Your task to perform on an android device: change text size in settings app Image 0: 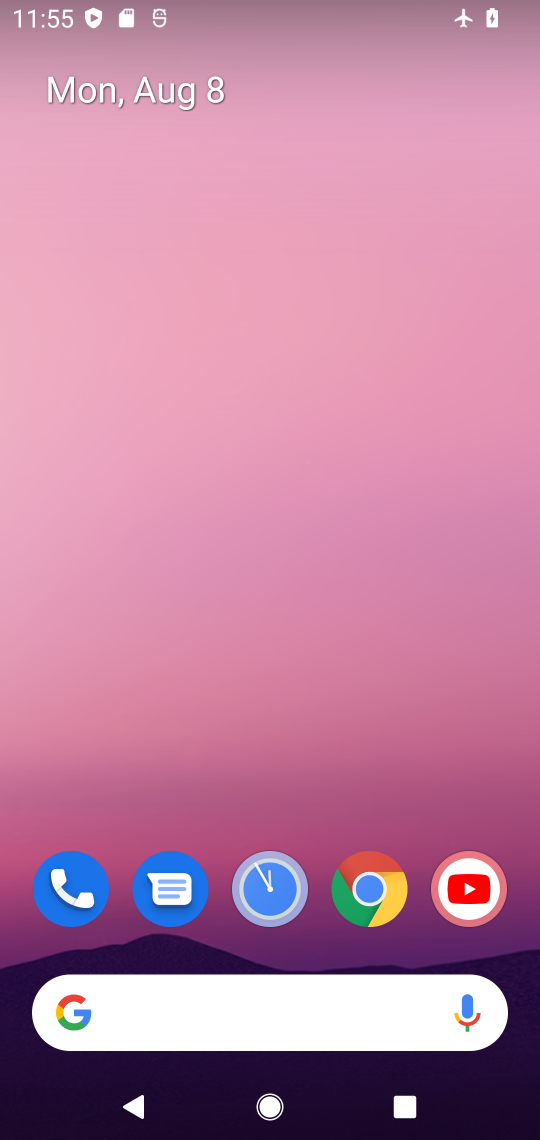
Step 0: drag from (393, 837) to (350, 142)
Your task to perform on an android device: change text size in settings app Image 1: 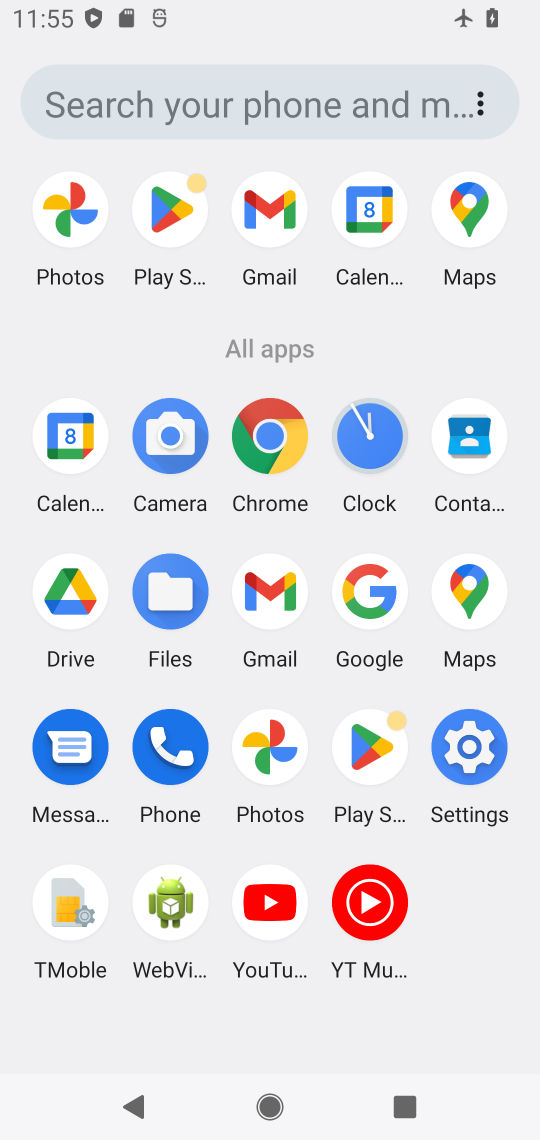
Step 1: click (489, 752)
Your task to perform on an android device: change text size in settings app Image 2: 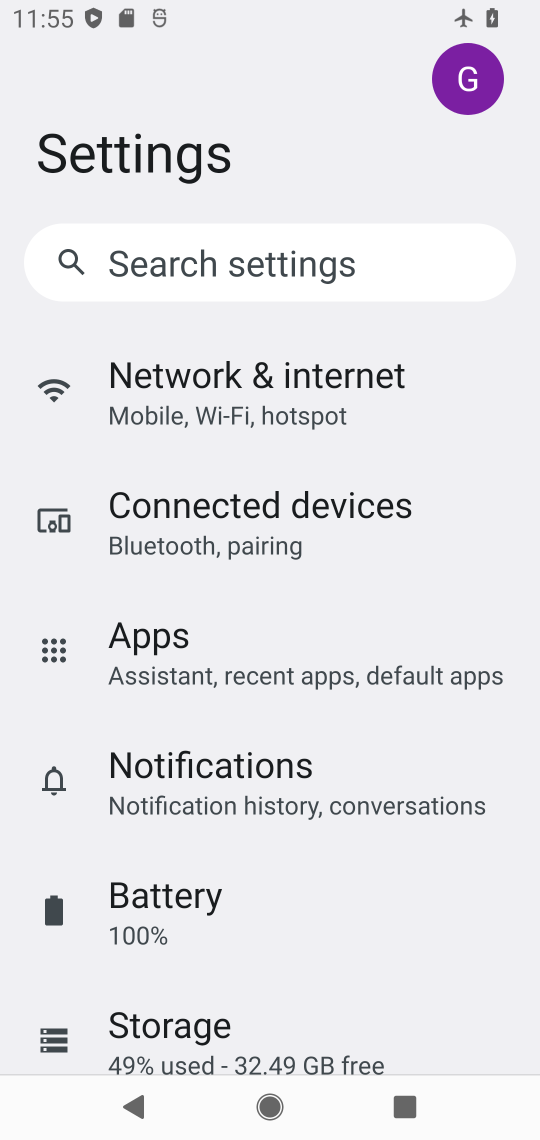
Step 2: drag from (318, 962) to (323, 579)
Your task to perform on an android device: change text size in settings app Image 3: 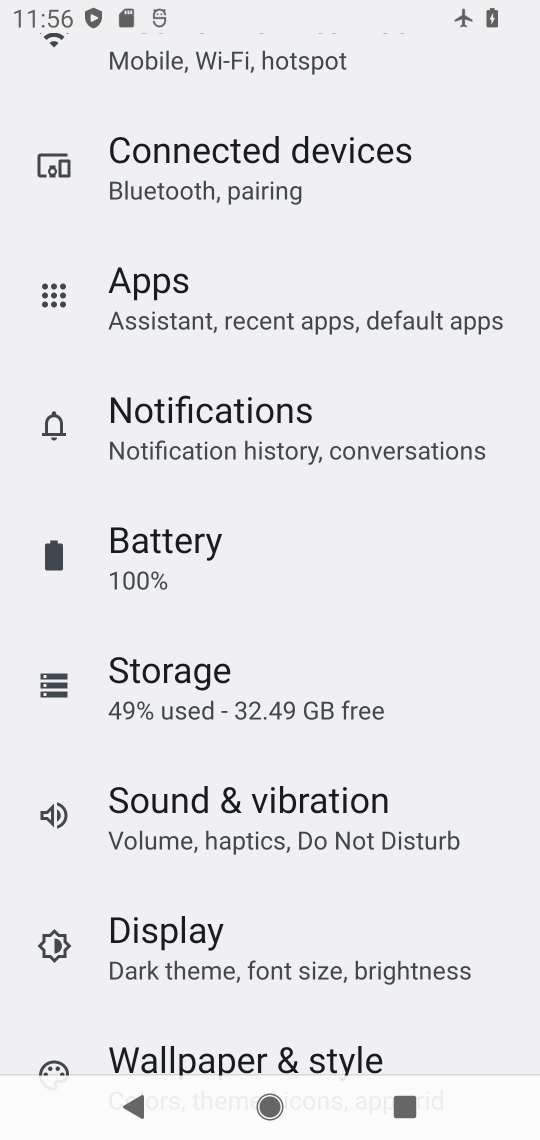
Step 3: click (308, 959)
Your task to perform on an android device: change text size in settings app Image 4: 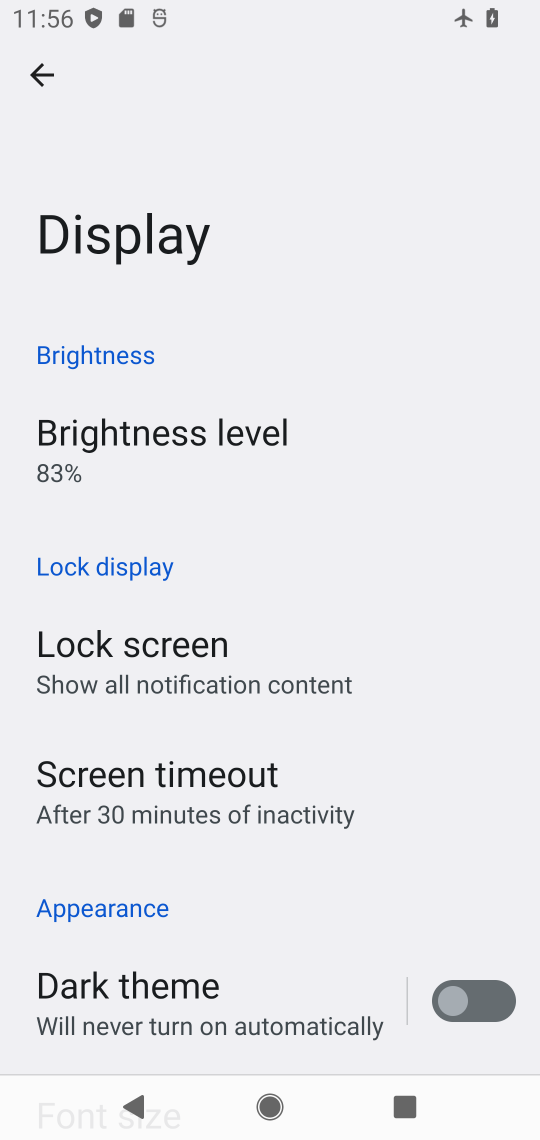
Step 4: click (308, 959)
Your task to perform on an android device: change text size in settings app Image 5: 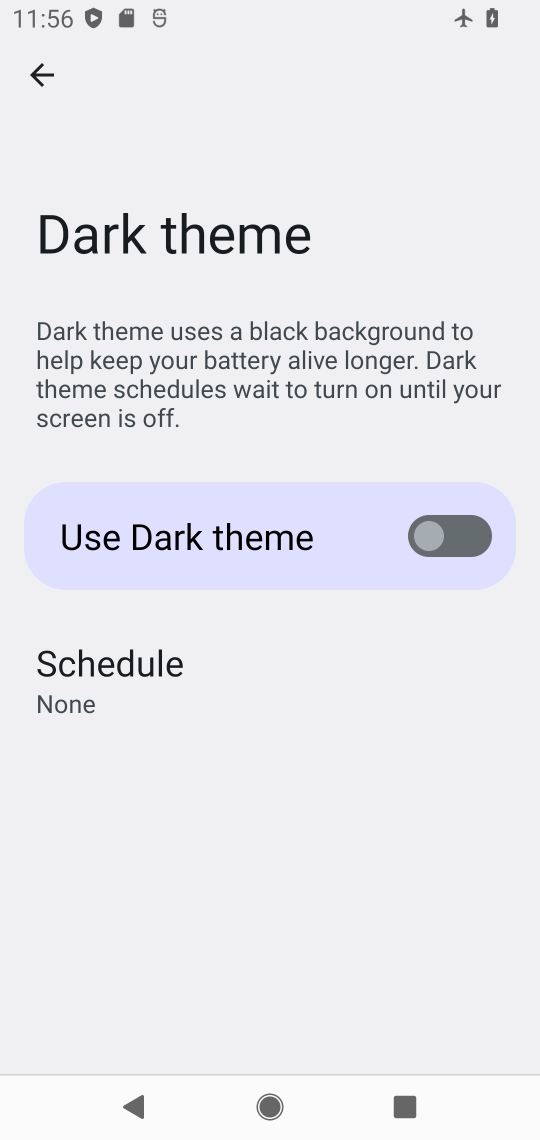
Step 5: click (52, 63)
Your task to perform on an android device: change text size in settings app Image 6: 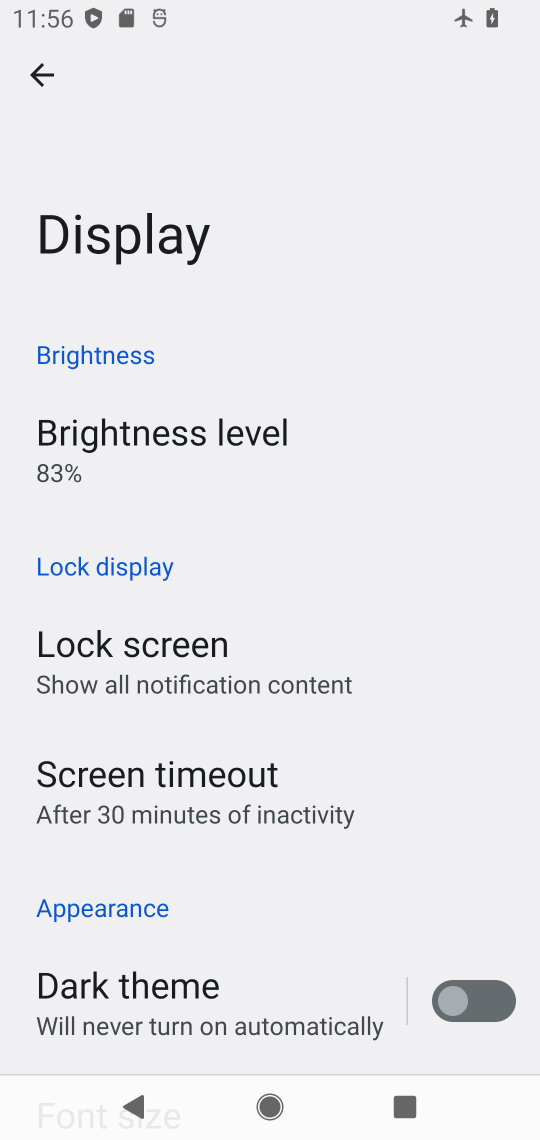
Step 6: drag from (378, 957) to (359, 536)
Your task to perform on an android device: change text size in settings app Image 7: 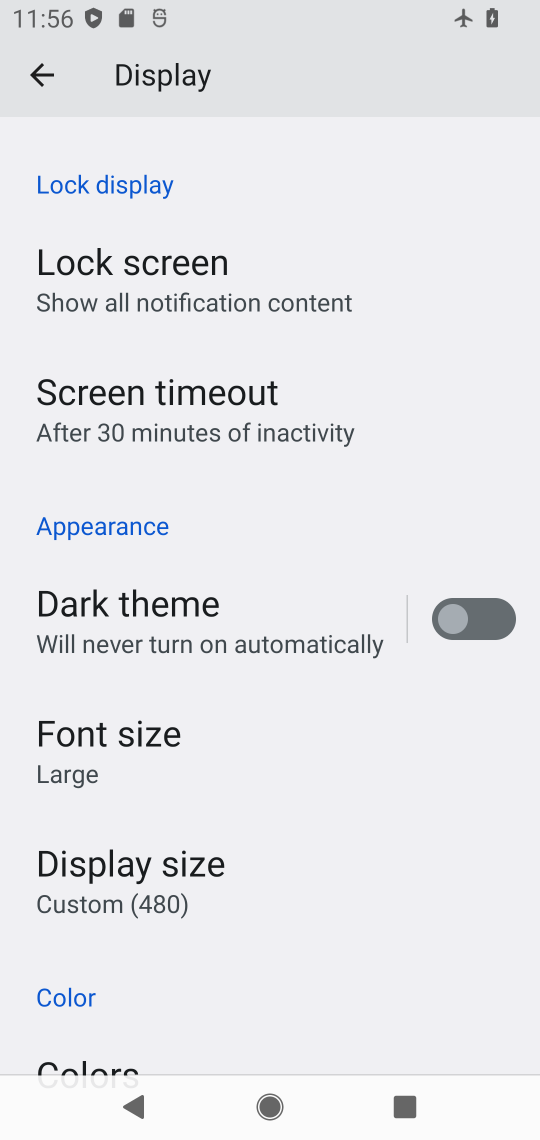
Step 7: drag from (270, 981) to (268, 621)
Your task to perform on an android device: change text size in settings app Image 8: 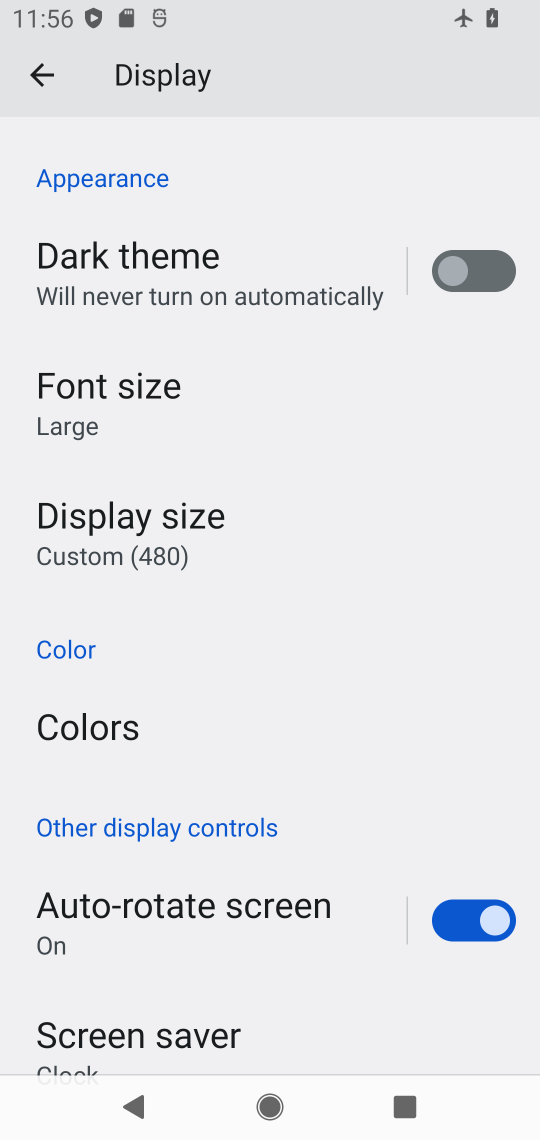
Step 8: drag from (302, 837) to (220, 326)
Your task to perform on an android device: change text size in settings app Image 9: 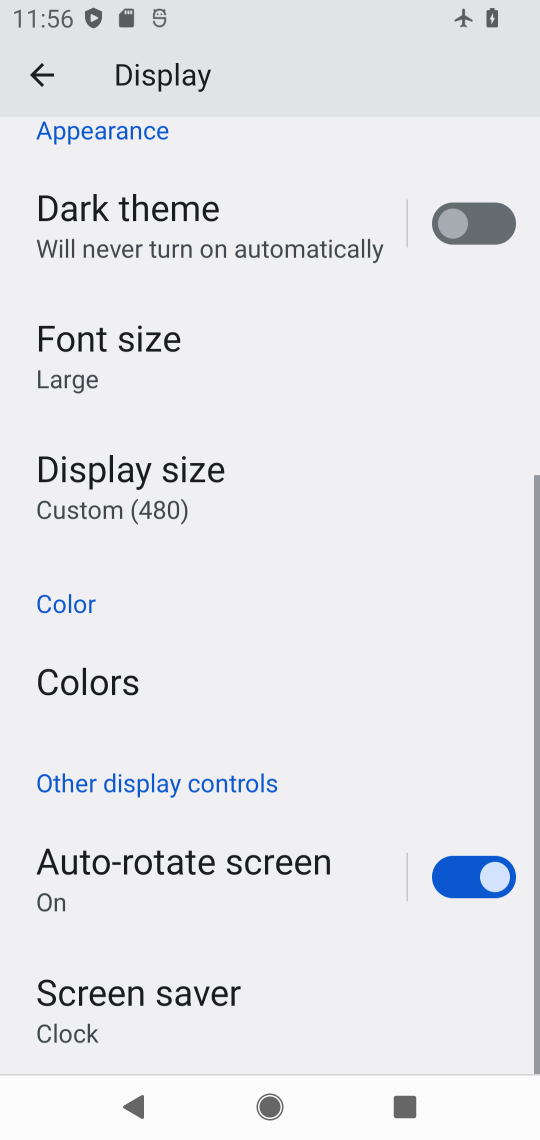
Step 9: click (172, 322)
Your task to perform on an android device: change text size in settings app Image 10: 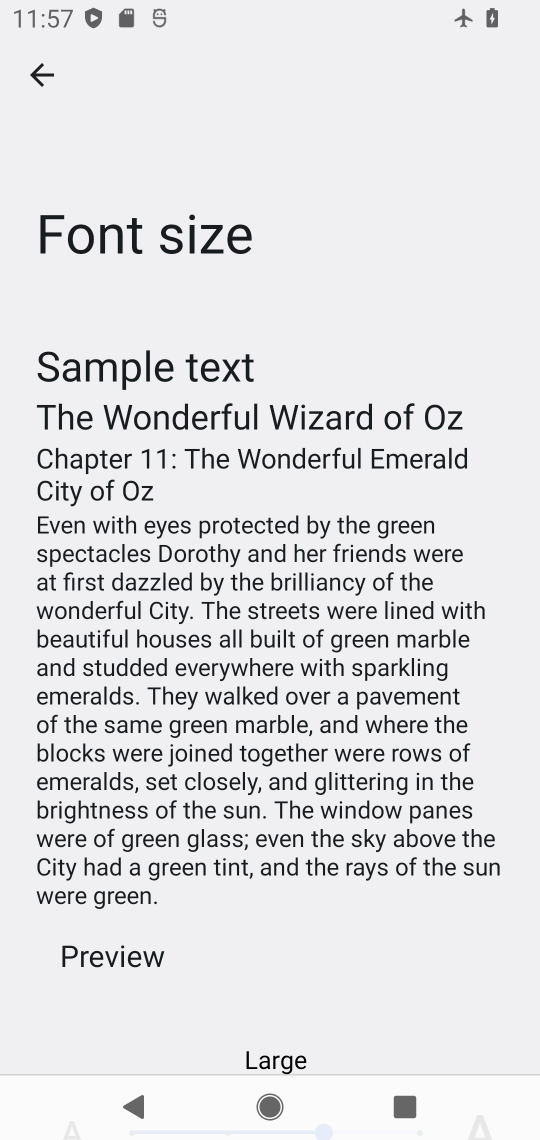
Step 10: drag from (337, 1021) to (319, 710)
Your task to perform on an android device: change text size in settings app Image 11: 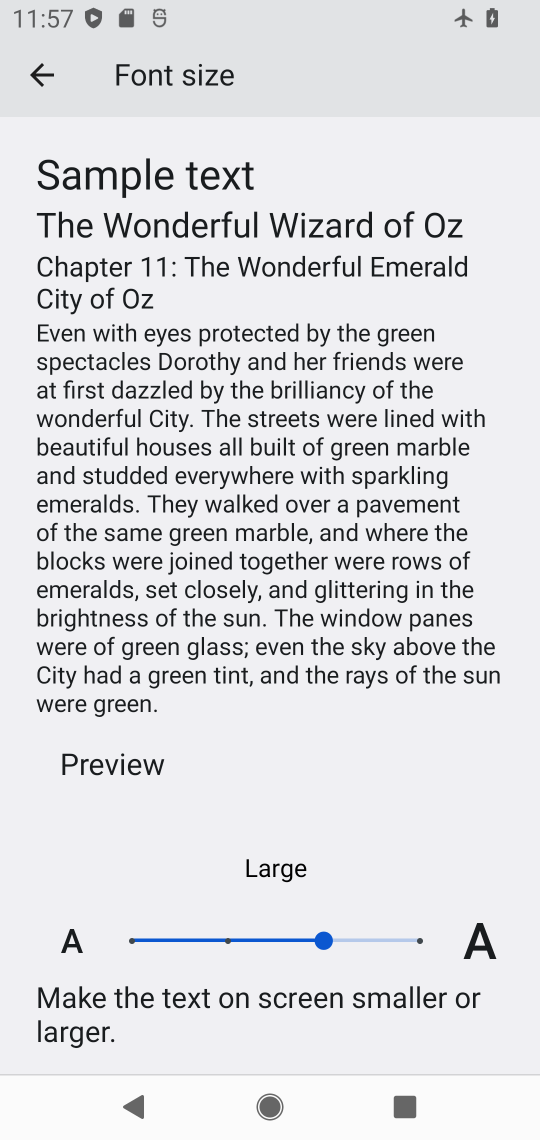
Step 11: click (227, 936)
Your task to perform on an android device: change text size in settings app Image 12: 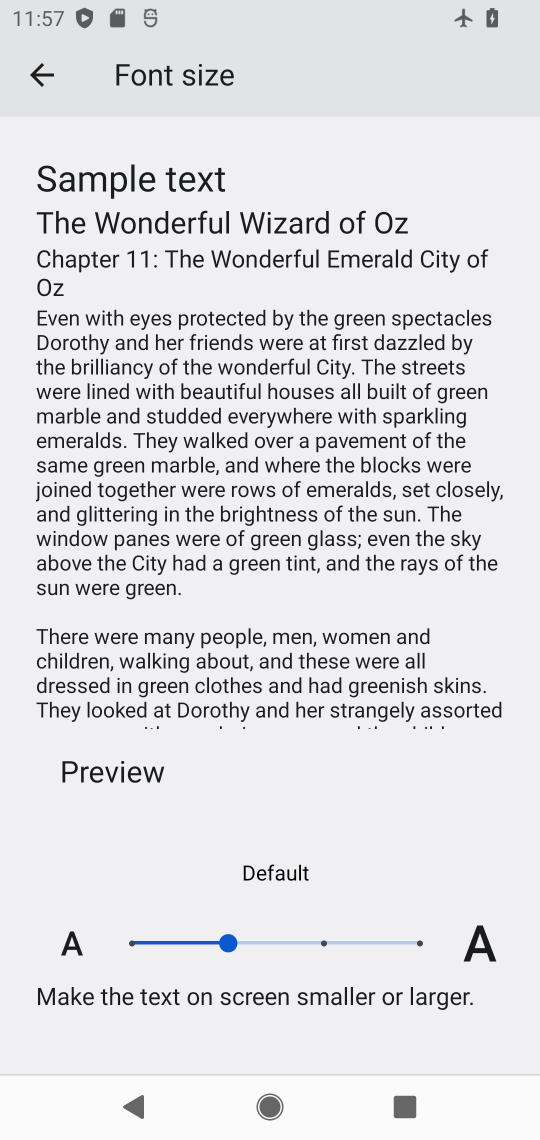
Step 12: task complete